Your task to perform on an android device: open app "Pandora - Music & Podcasts" (install if not already installed) and go to login screen Image 0: 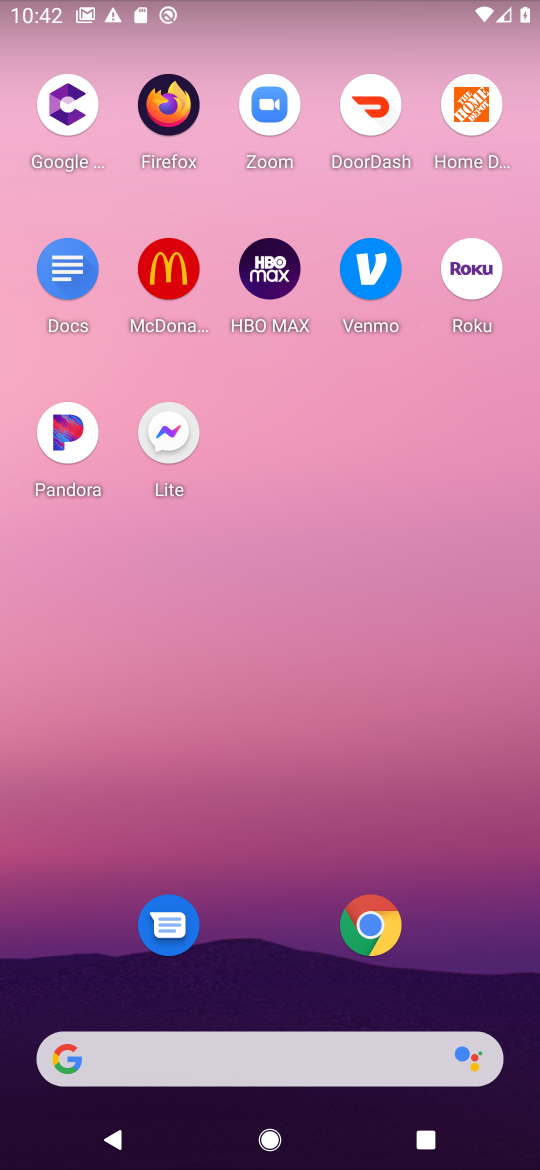
Step 0: drag from (276, 975) to (430, 219)
Your task to perform on an android device: open app "Pandora - Music & Podcasts" (install if not already installed) and go to login screen Image 1: 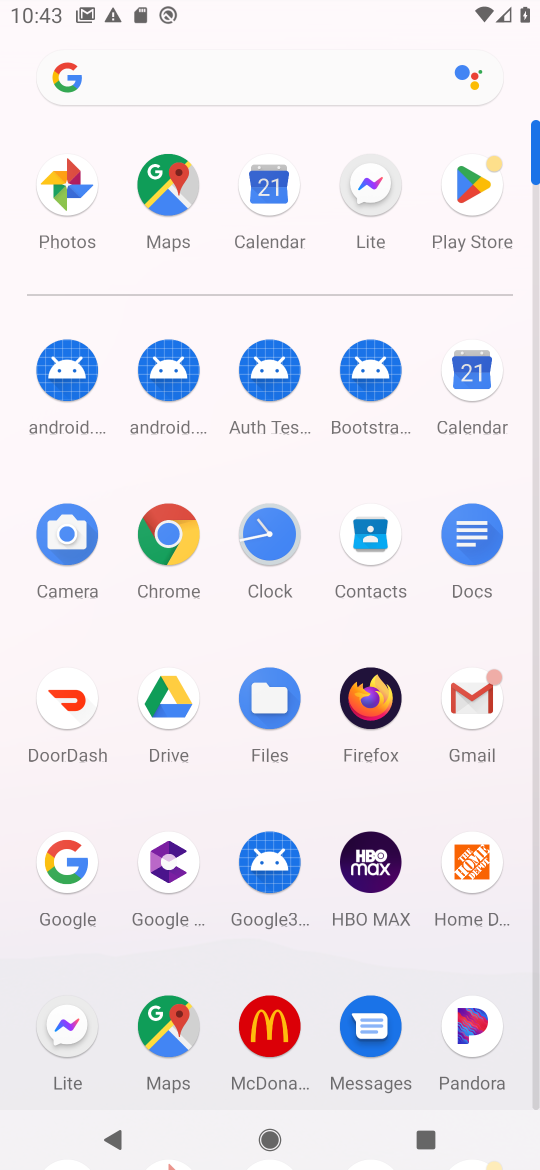
Step 1: click (479, 171)
Your task to perform on an android device: open app "Pandora - Music & Podcasts" (install if not already installed) and go to login screen Image 2: 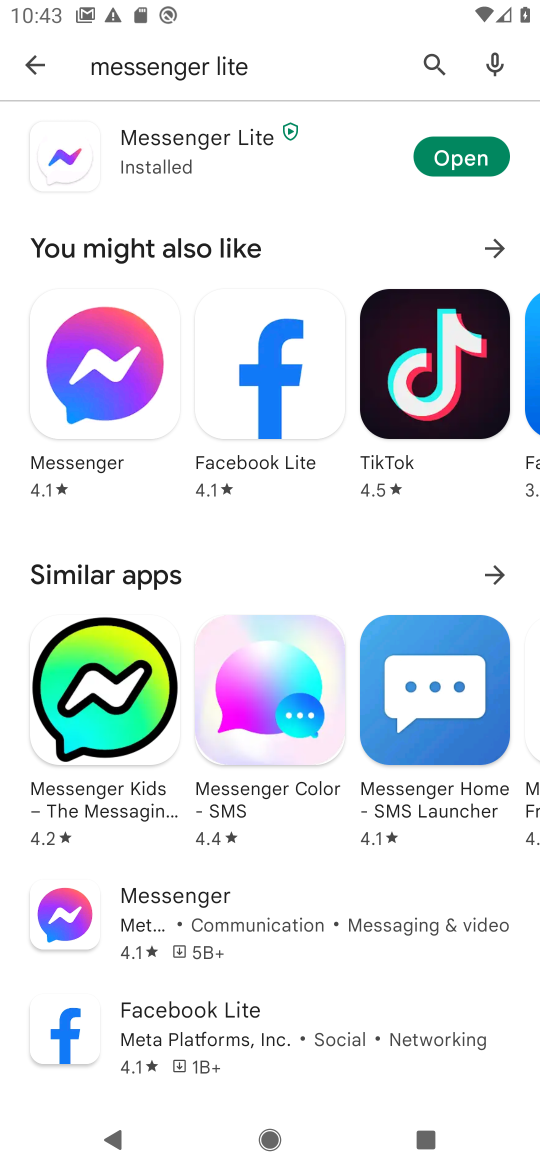
Step 2: click (416, 38)
Your task to perform on an android device: open app "Pandora - Music & Podcasts" (install if not already installed) and go to login screen Image 3: 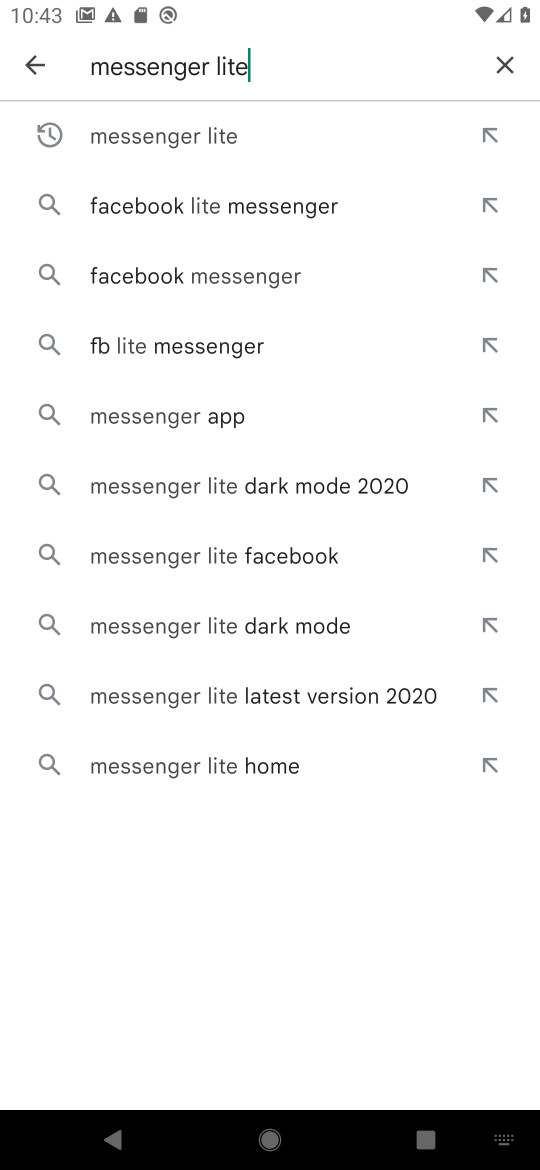
Step 3: click (512, 69)
Your task to perform on an android device: open app "Pandora - Music & Podcasts" (install if not already installed) and go to login screen Image 4: 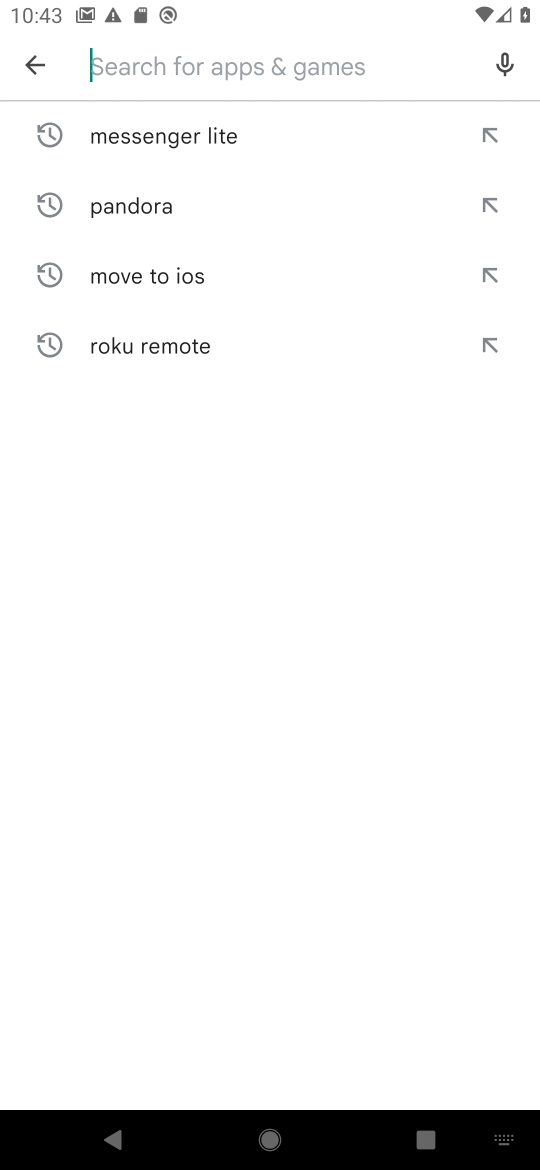
Step 4: click (184, 192)
Your task to perform on an android device: open app "Pandora - Music & Podcasts" (install if not already installed) and go to login screen Image 5: 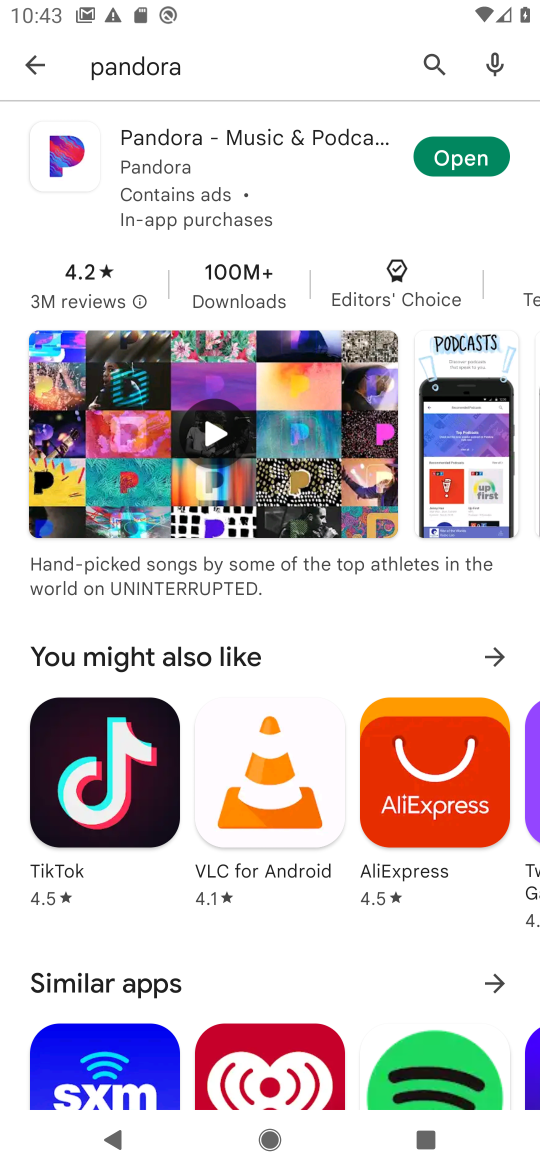
Step 5: click (461, 158)
Your task to perform on an android device: open app "Pandora - Music & Podcasts" (install if not already installed) and go to login screen Image 6: 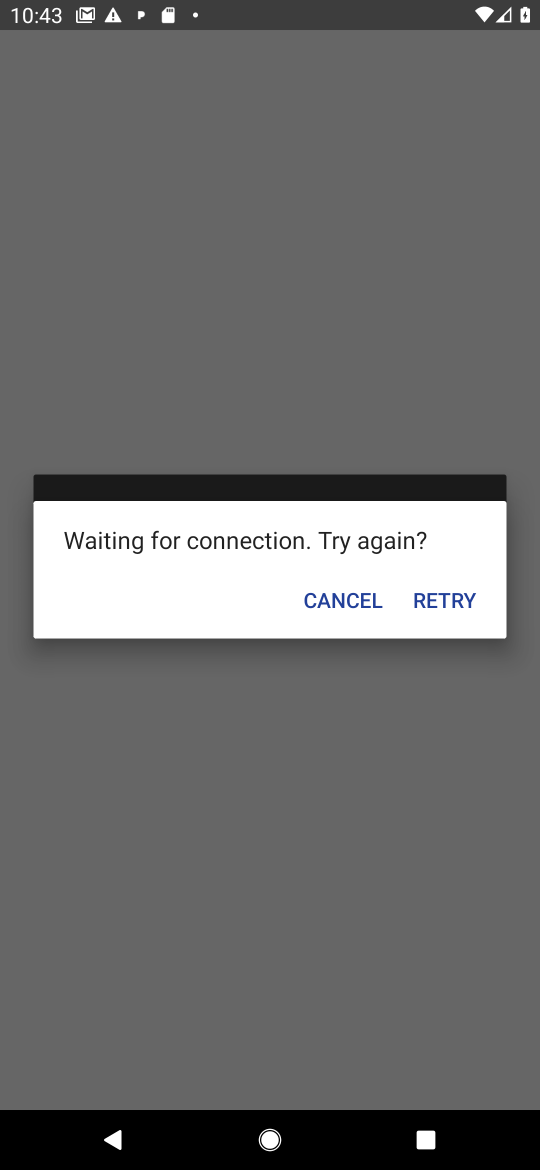
Step 6: task complete